Your task to perform on an android device: Show me recent news Image 0: 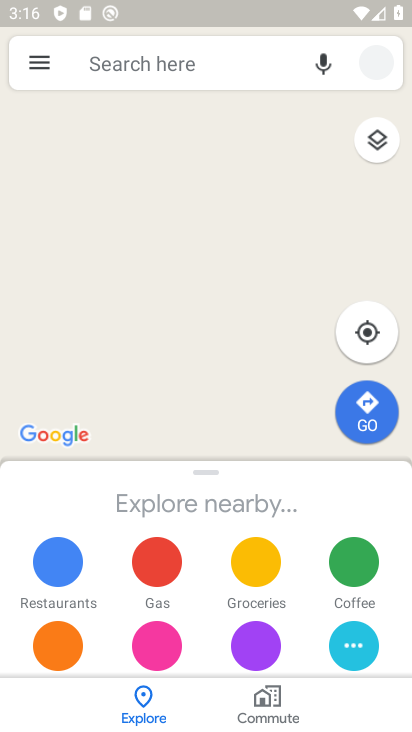
Step 0: press home button
Your task to perform on an android device: Show me recent news Image 1: 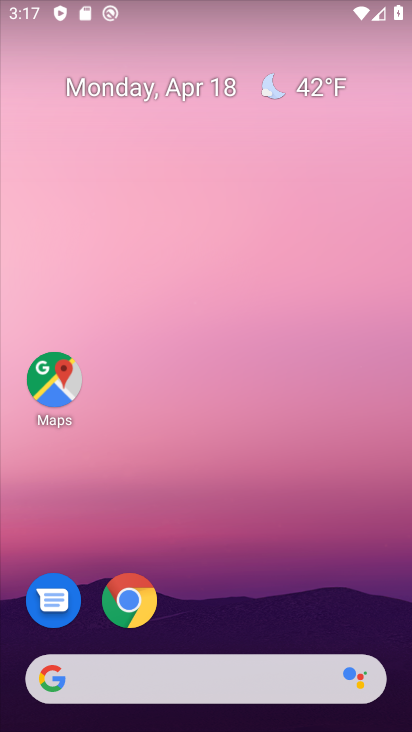
Step 1: task complete